Your task to perform on an android device: turn on sleep mode Image 0: 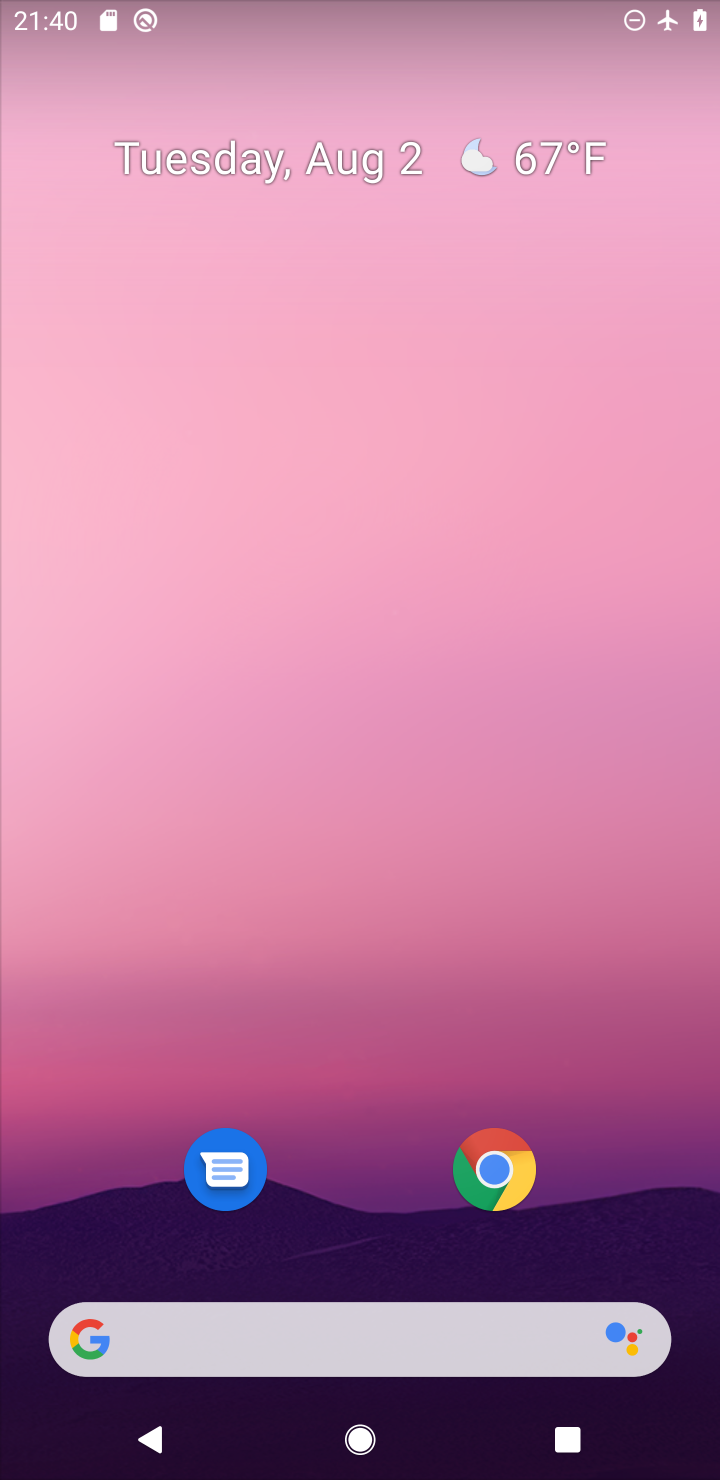
Step 0: drag from (366, 1240) to (330, 110)
Your task to perform on an android device: turn on sleep mode Image 1: 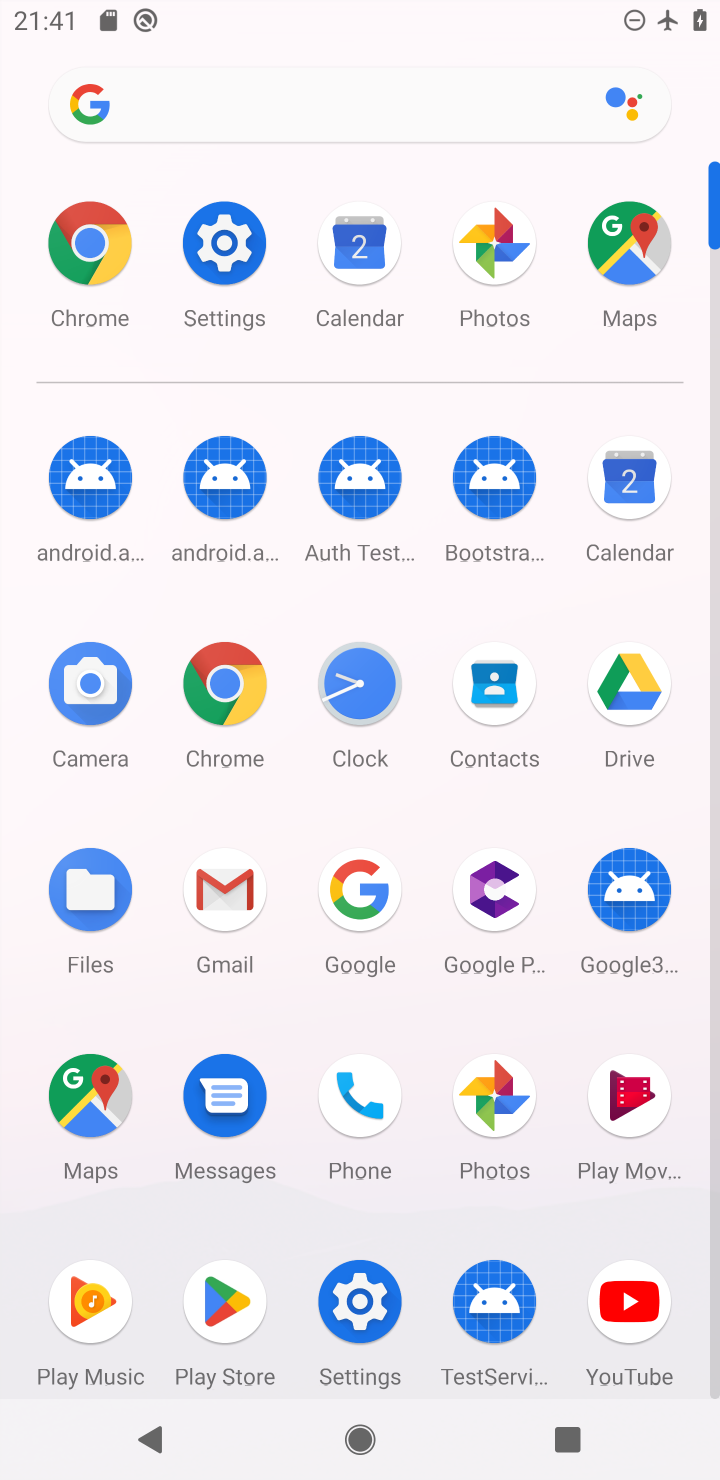
Step 1: click (224, 250)
Your task to perform on an android device: turn on sleep mode Image 2: 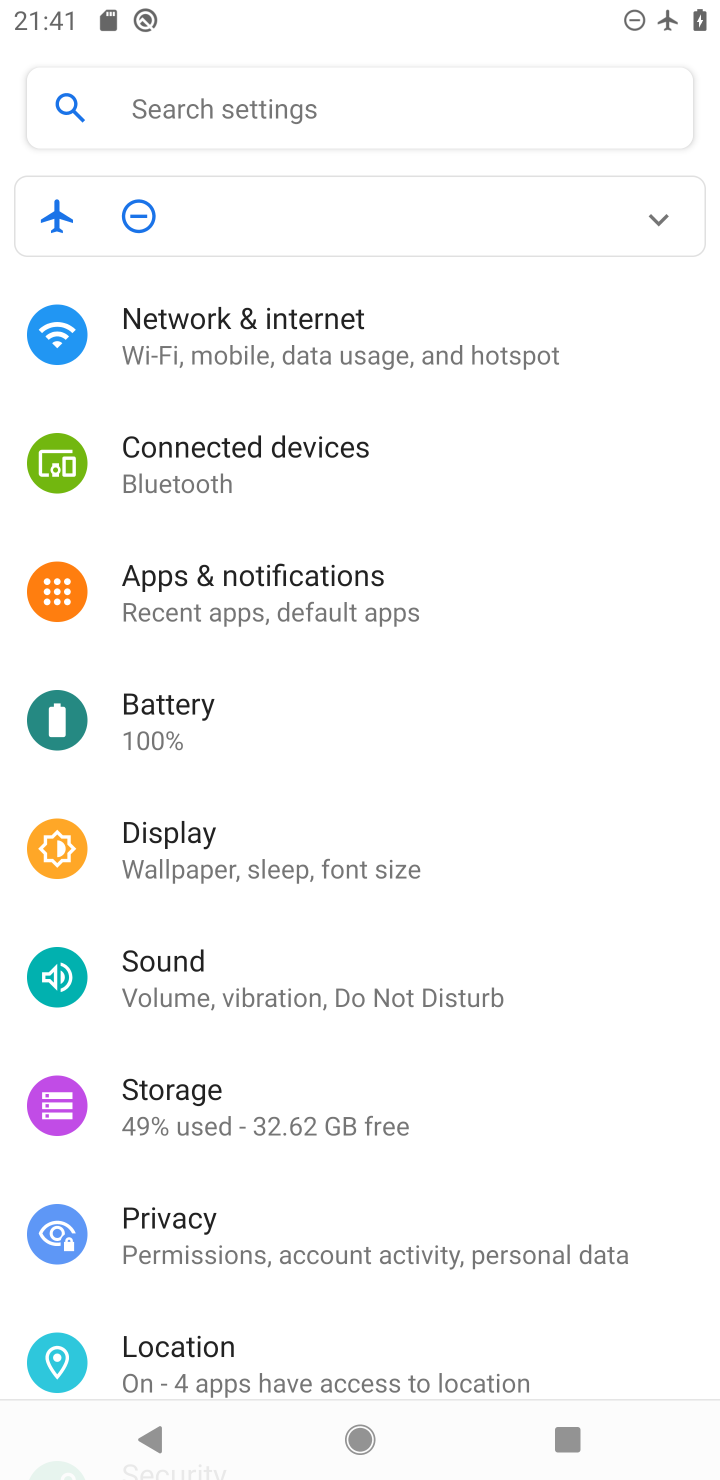
Step 2: click (168, 872)
Your task to perform on an android device: turn on sleep mode Image 3: 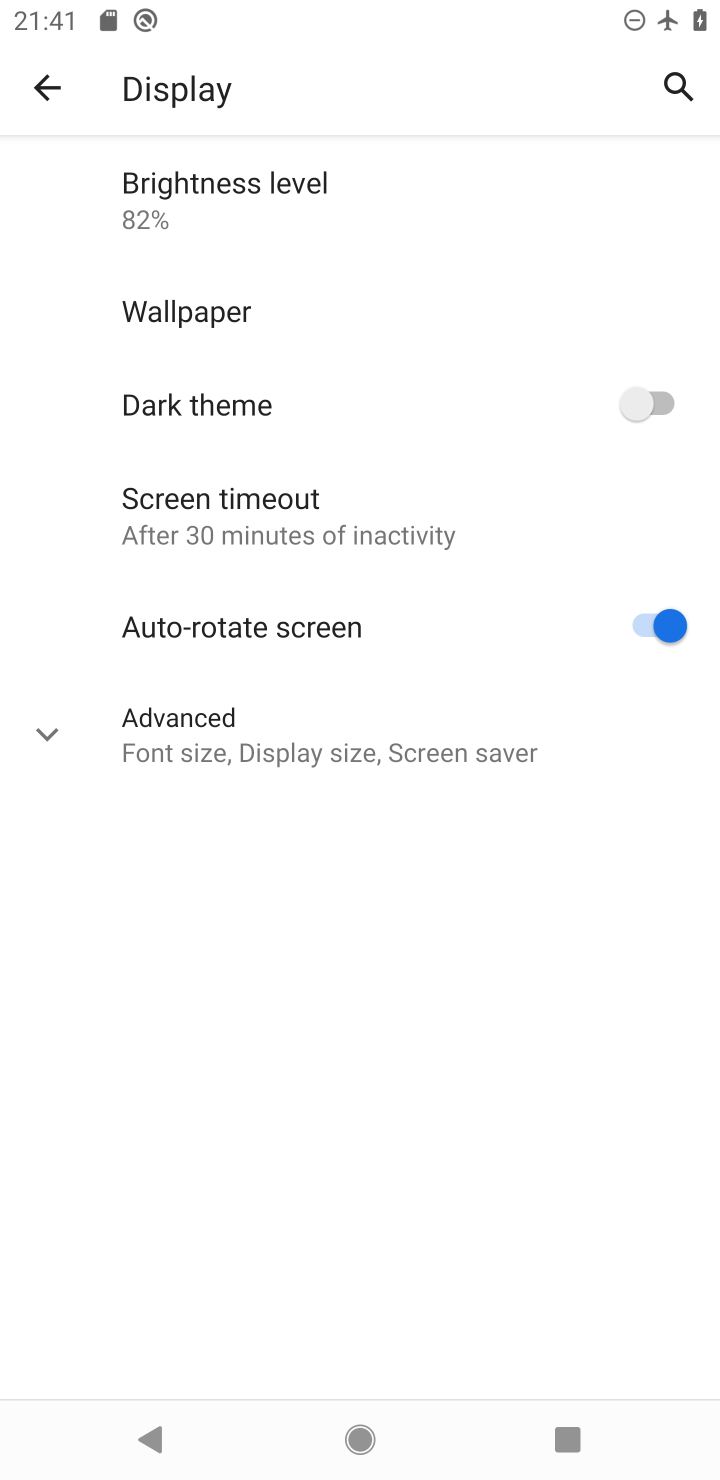
Step 3: click (201, 748)
Your task to perform on an android device: turn on sleep mode Image 4: 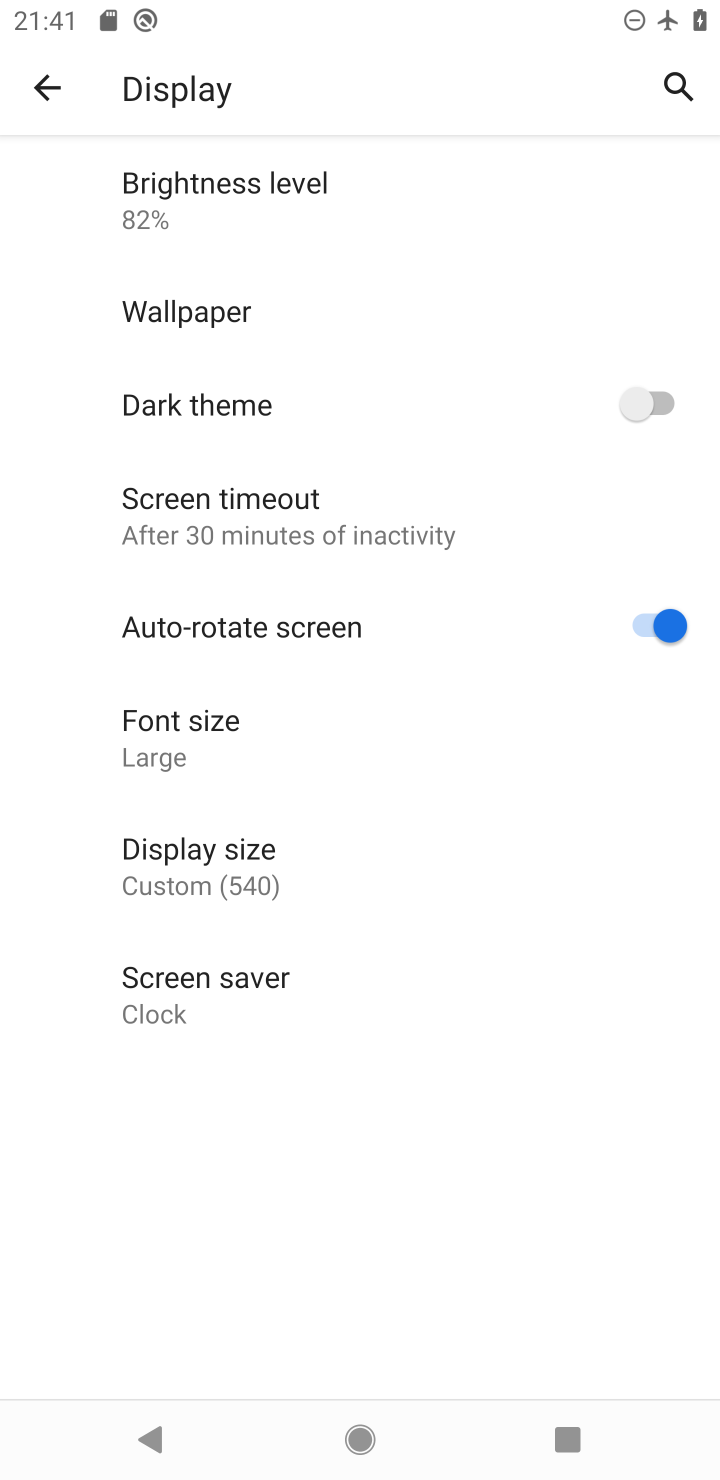
Step 4: task complete